Your task to perform on an android device: Open wifi settings Image 0: 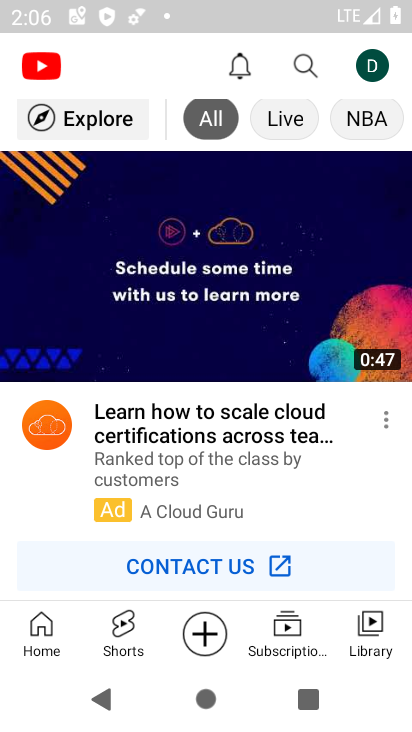
Step 0: press home button
Your task to perform on an android device: Open wifi settings Image 1: 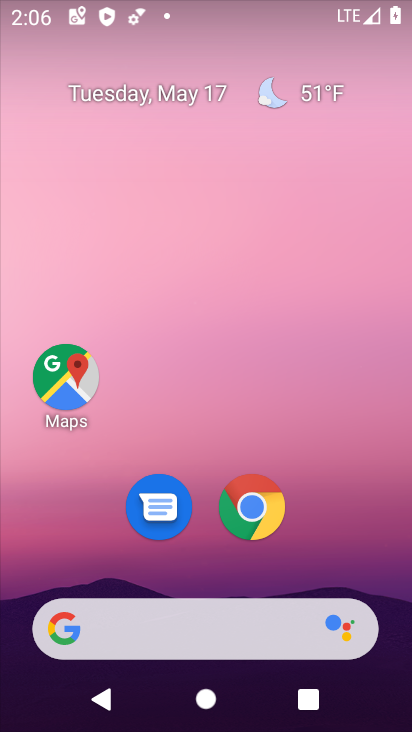
Step 1: drag from (245, 581) to (297, 52)
Your task to perform on an android device: Open wifi settings Image 2: 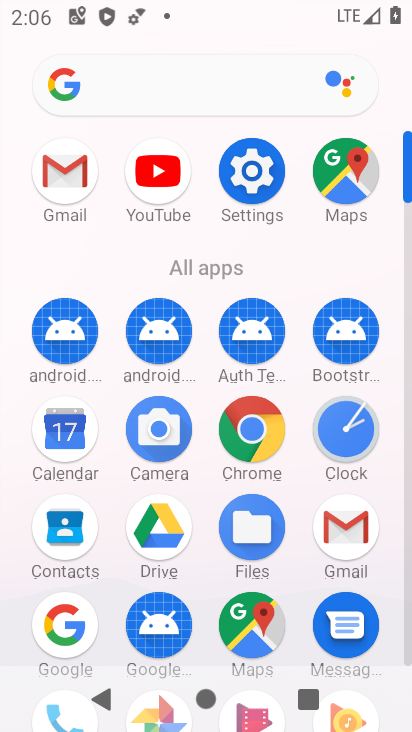
Step 2: click (234, 168)
Your task to perform on an android device: Open wifi settings Image 3: 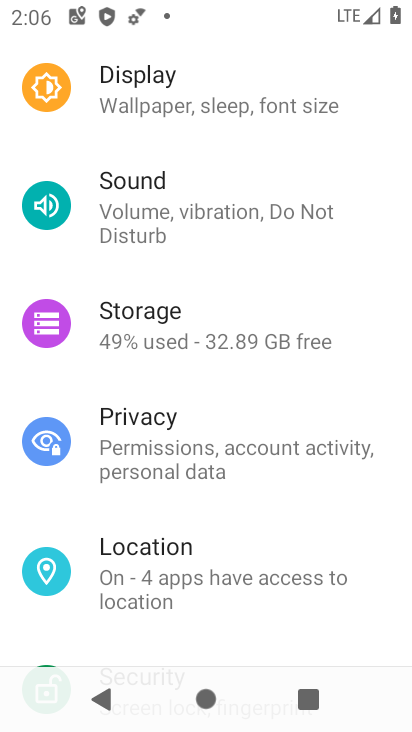
Step 3: drag from (230, 189) to (281, 343)
Your task to perform on an android device: Open wifi settings Image 4: 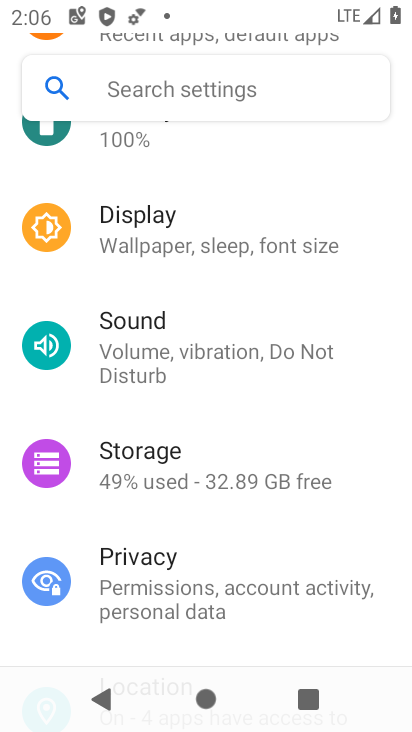
Step 4: drag from (268, 112) to (270, 596)
Your task to perform on an android device: Open wifi settings Image 5: 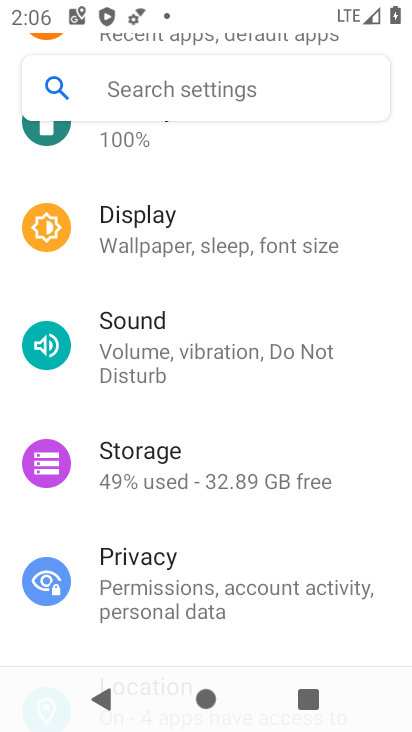
Step 5: drag from (261, 347) to (269, 597)
Your task to perform on an android device: Open wifi settings Image 6: 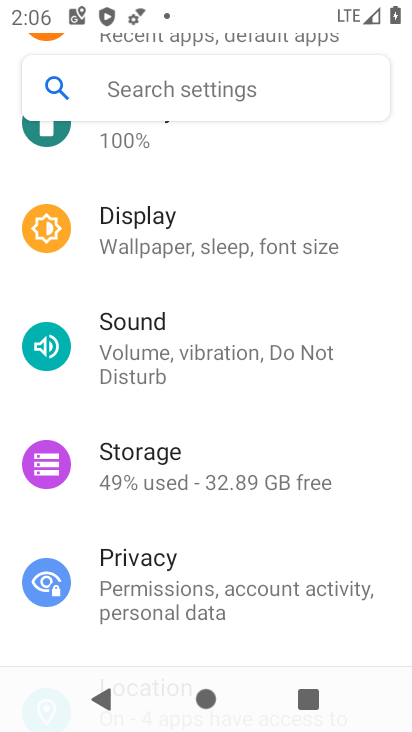
Step 6: drag from (265, 302) to (272, 557)
Your task to perform on an android device: Open wifi settings Image 7: 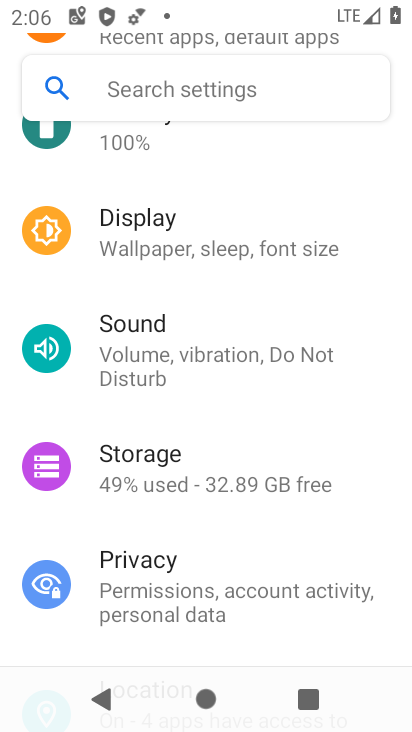
Step 7: drag from (282, 387) to (270, 545)
Your task to perform on an android device: Open wifi settings Image 8: 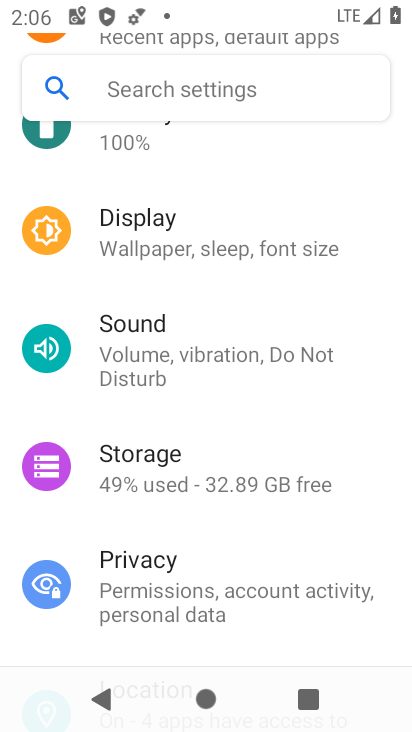
Step 8: drag from (258, 455) to (253, 615)
Your task to perform on an android device: Open wifi settings Image 9: 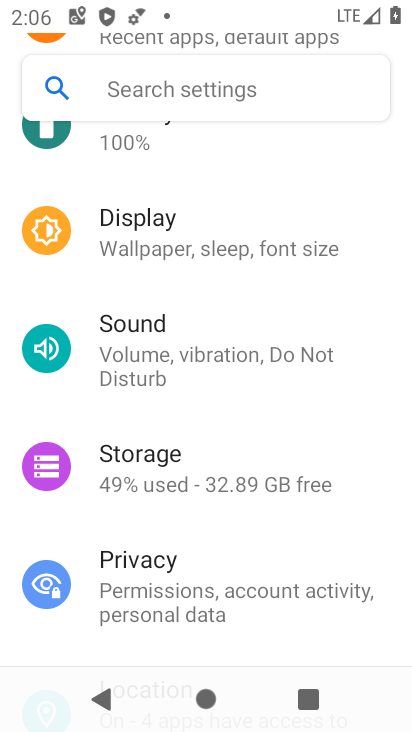
Step 9: drag from (261, 377) to (278, 645)
Your task to perform on an android device: Open wifi settings Image 10: 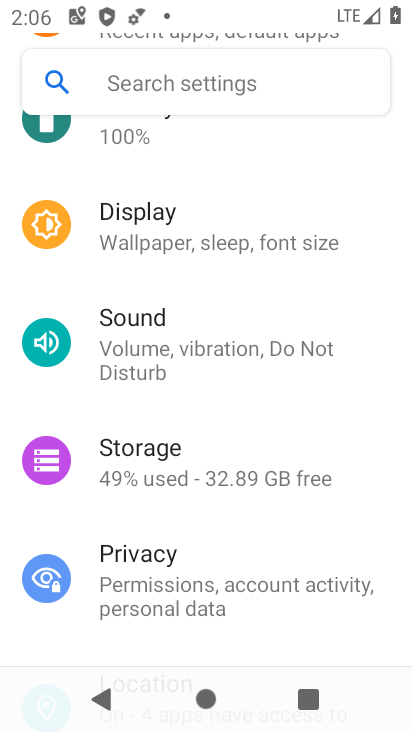
Step 10: drag from (248, 338) to (282, 603)
Your task to perform on an android device: Open wifi settings Image 11: 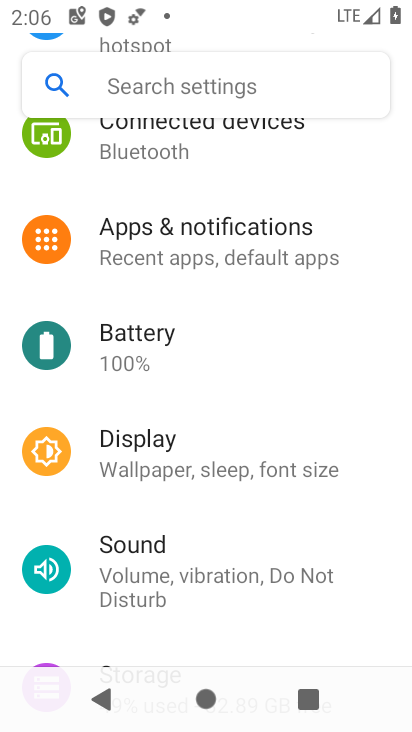
Step 11: drag from (267, 241) to (263, 606)
Your task to perform on an android device: Open wifi settings Image 12: 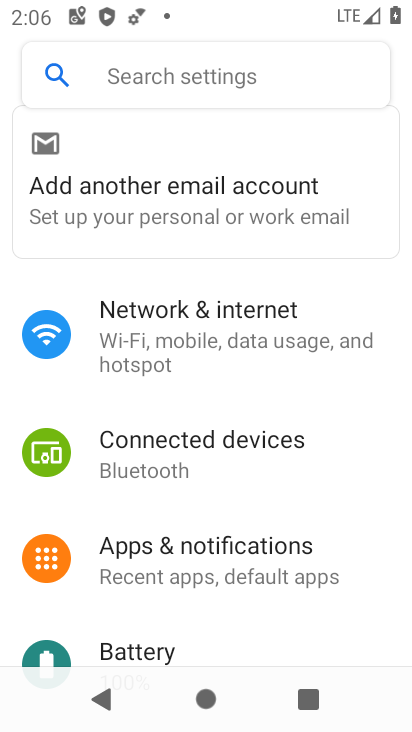
Step 12: drag from (256, 192) to (263, 476)
Your task to perform on an android device: Open wifi settings Image 13: 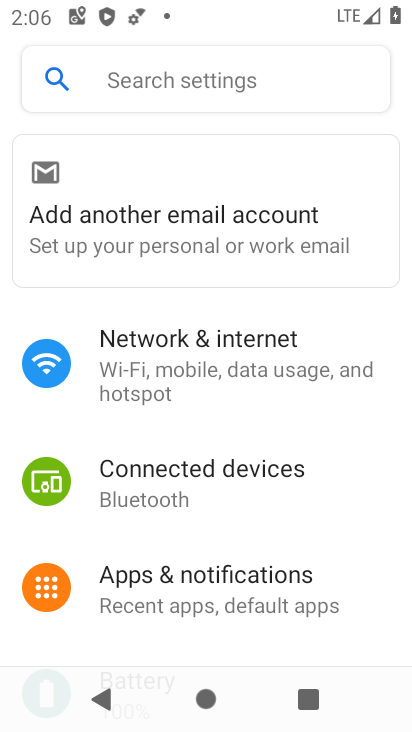
Step 13: click (164, 347)
Your task to perform on an android device: Open wifi settings Image 14: 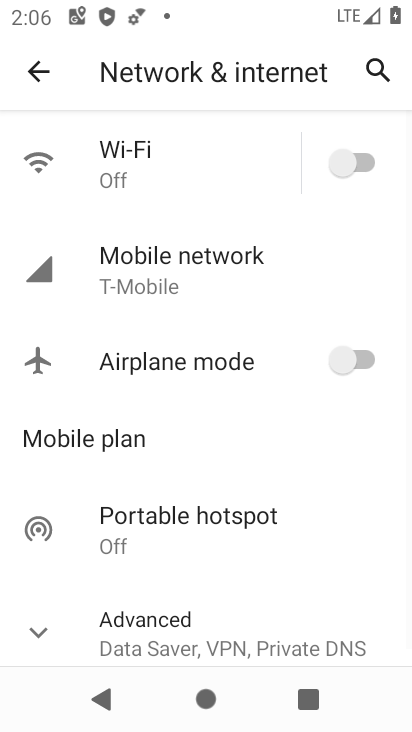
Step 14: click (116, 148)
Your task to perform on an android device: Open wifi settings Image 15: 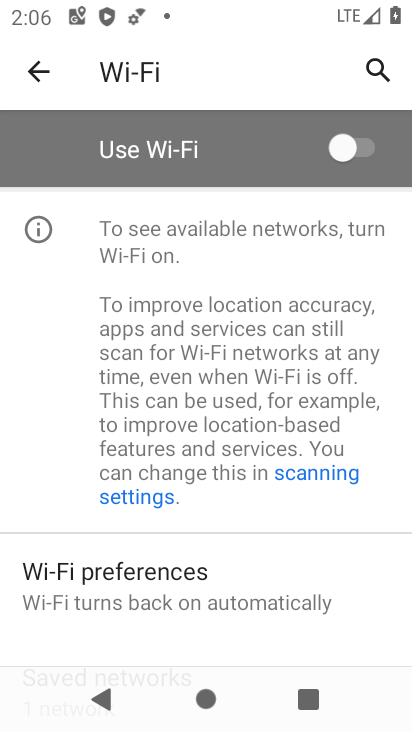
Step 15: task complete